Your task to perform on an android device: Open CNN.com Image 0: 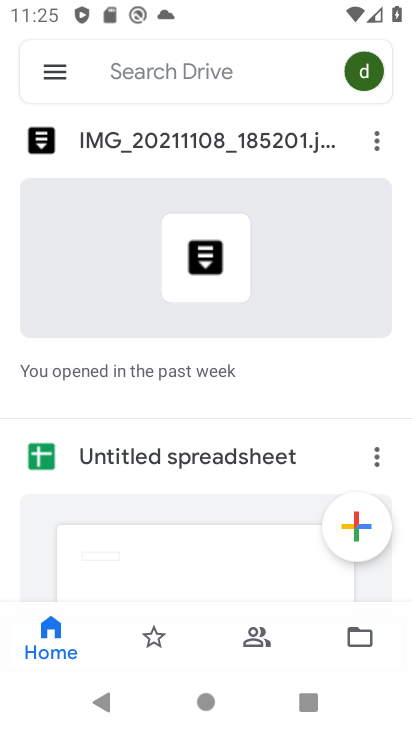
Step 0: press home button
Your task to perform on an android device: Open CNN.com Image 1: 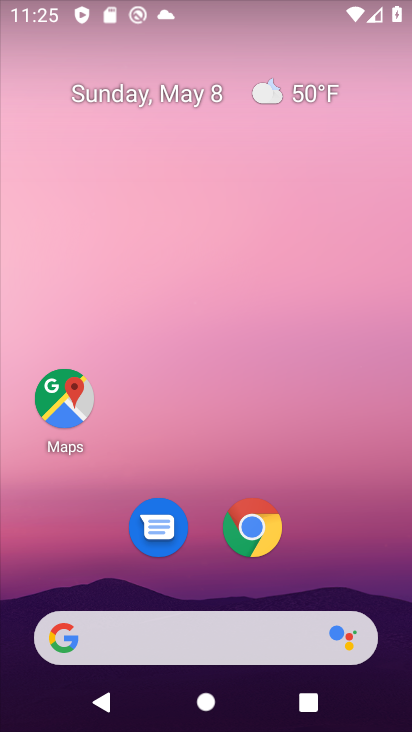
Step 1: click (252, 522)
Your task to perform on an android device: Open CNN.com Image 2: 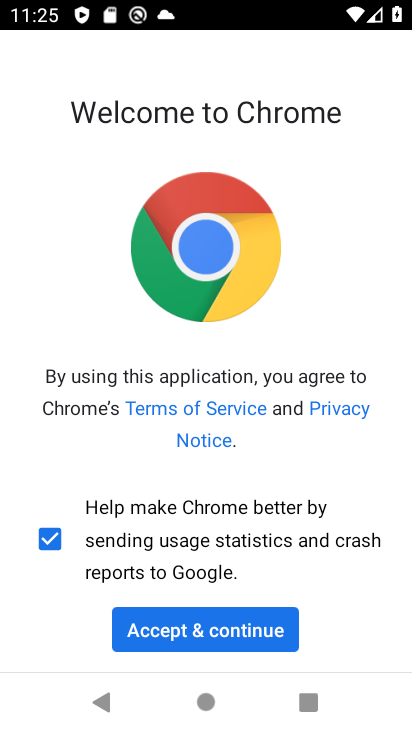
Step 2: click (212, 633)
Your task to perform on an android device: Open CNN.com Image 3: 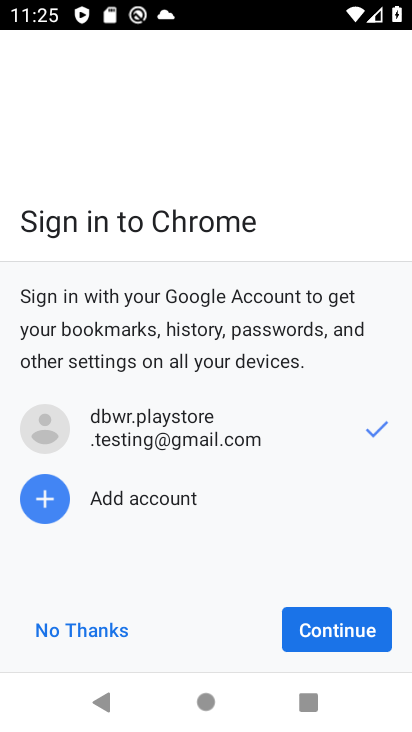
Step 3: click (342, 619)
Your task to perform on an android device: Open CNN.com Image 4: 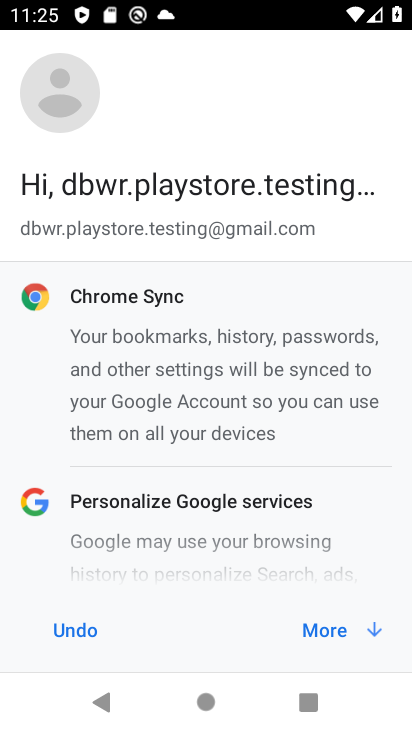
Step 4: click (335, 627)
Your task to perform on an android device: Open CNN.com Image 5: 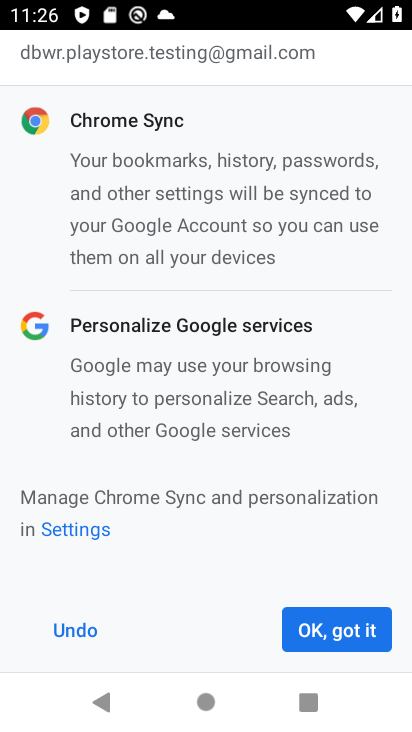
Step 5: click (335, 627)
Your task to perform on an android device: Open CNN.com Image 6: 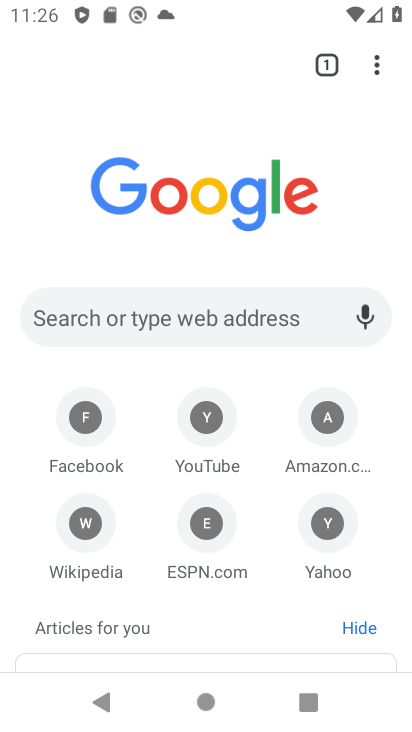
Step 6: click (213, 317)
Your task to perform on an android device: Open CNN.com Image 7: 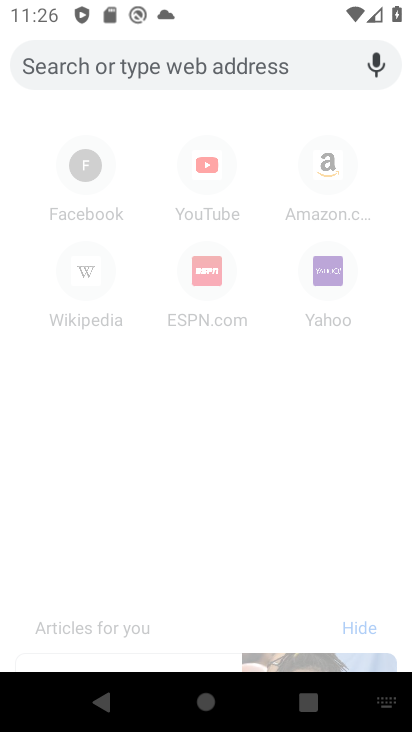
Step 7: type "CNN.com"
Your task to perform on an android device: Open CNN.com Image 8: 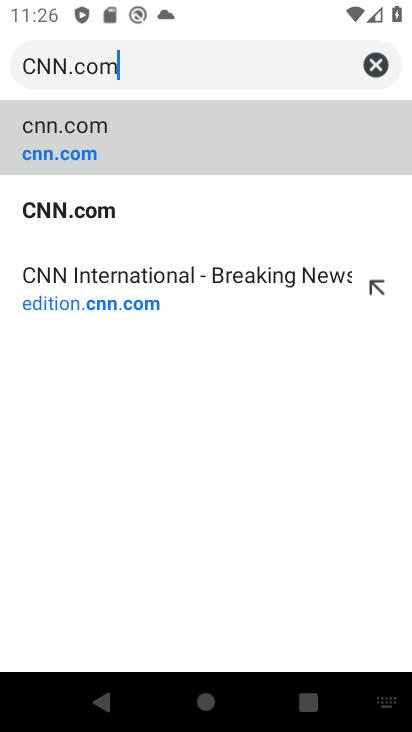
Step 8: click (89, 133)
Your task to perform on an android device: Open CNN.com Image 9: 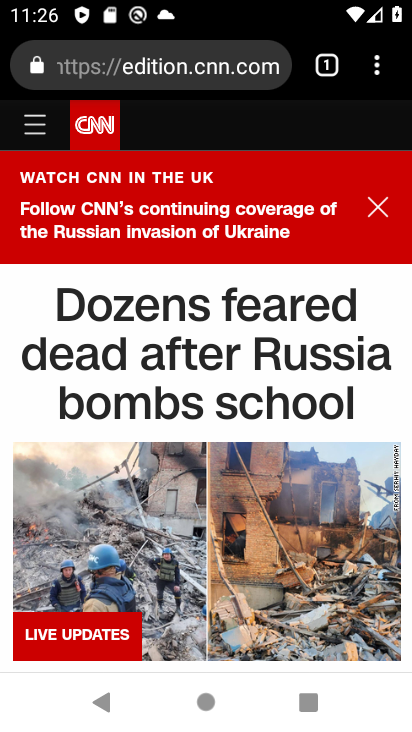
Step 9: task complete